Your task to perform on an android device: Is it going to rain tomorrow? Image 0: 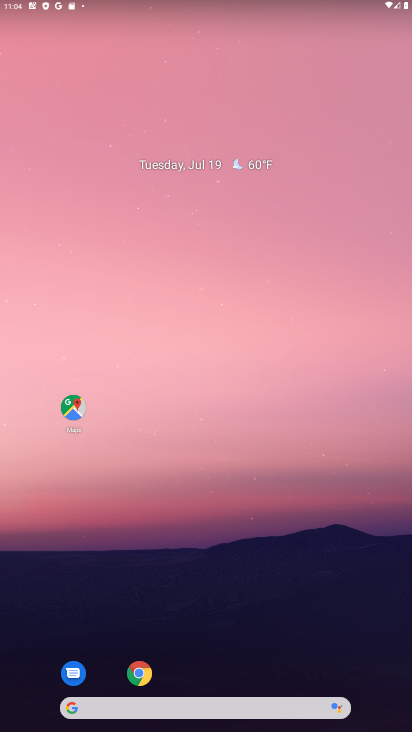
Step 0: drag from (384, 686) to (373, 624)
Your task to perform on an android device: Is it going to rain tomorrow? Image 1: 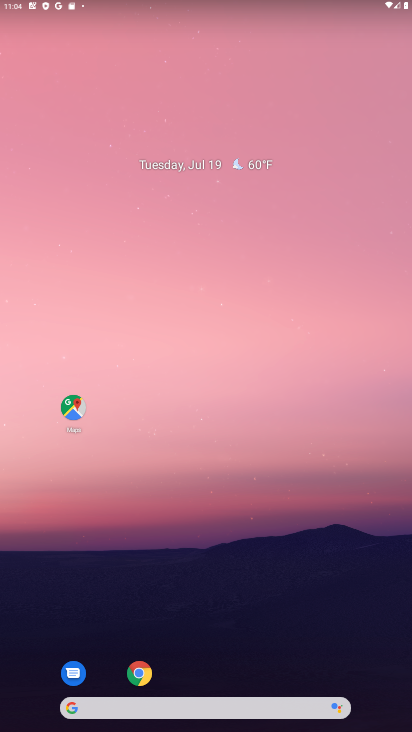
Step 1: drag from (4, 305) to (389, 310)
Your task to perform on an android device: Is it going to rain tomorrow? Image 2: 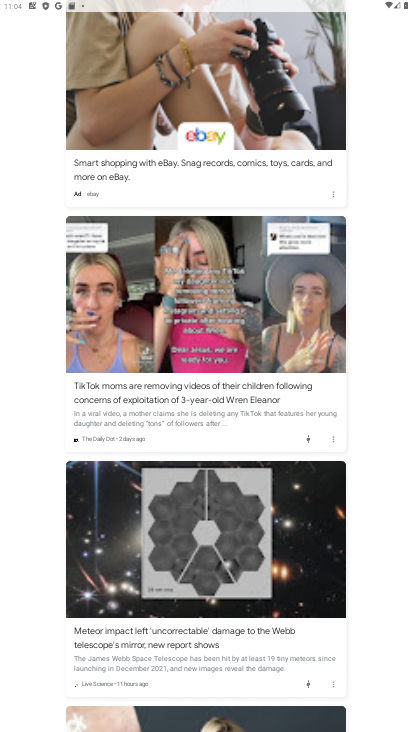
Step 2: drag from (182, 205) to (181, 543)
Your task to perform on an android device: Is it going to rain tomorrow? Image 3: 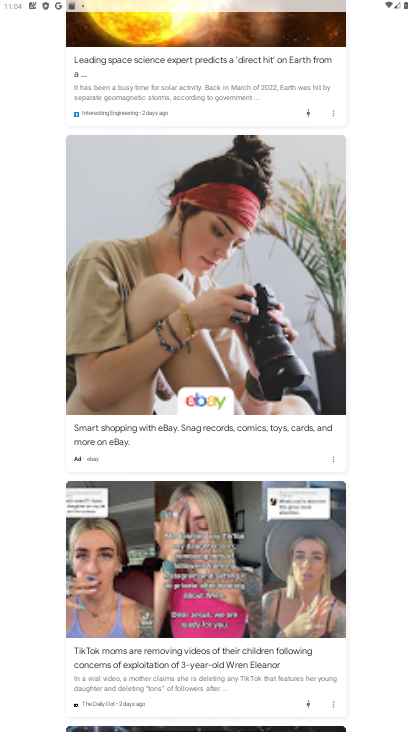
Step 3: drag from (215, 45) to (208, 427)
Your task to perform on an android device: Is it going to rain tomorrow? Image 4: 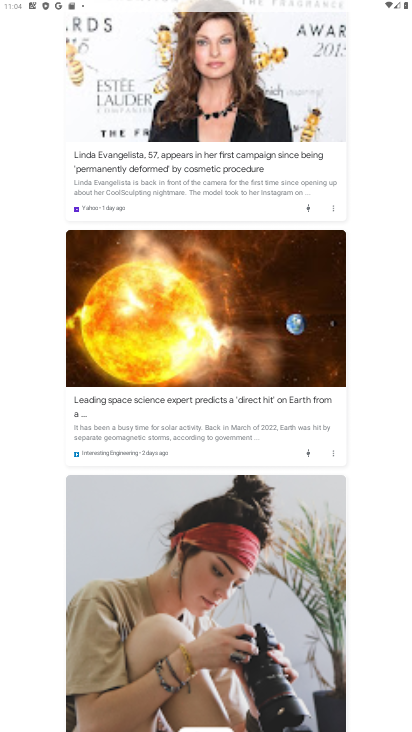
Step 4: drag from (184, 71) to (176, 496)
Your task to perform on an android device: Is it going to rain tomorrow? Image 5: 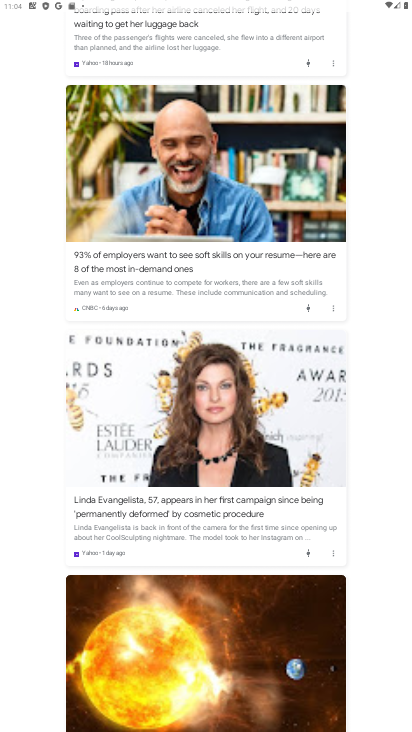
Step 5: drag from (231, 72) to (208, 498)
Your task to perform on an android device: Is it going to rain tomorrow? Image 6: 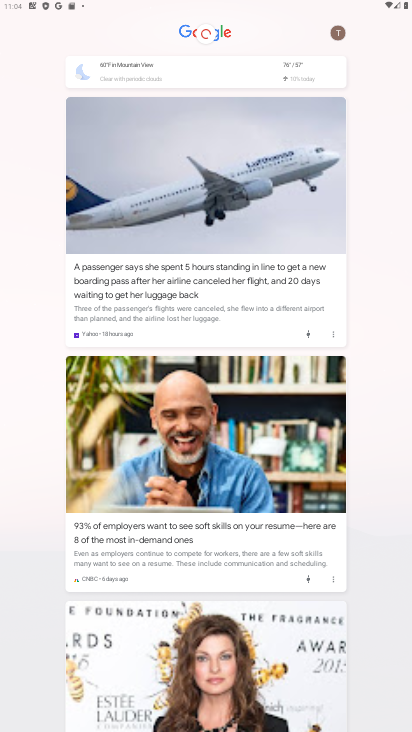
Step 6: click (292, 60)
Your task to perform on an android device: Is it going to rain tomorrow? Image 7: 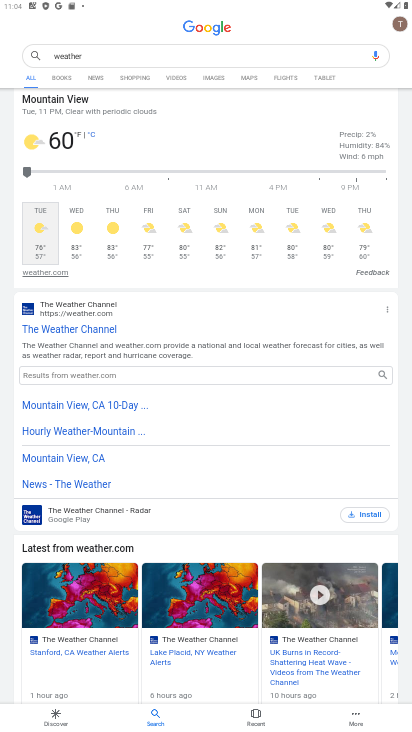
Step 7: task complete